Your task to perform on an android device: turn on bluetooth scan Image 0: 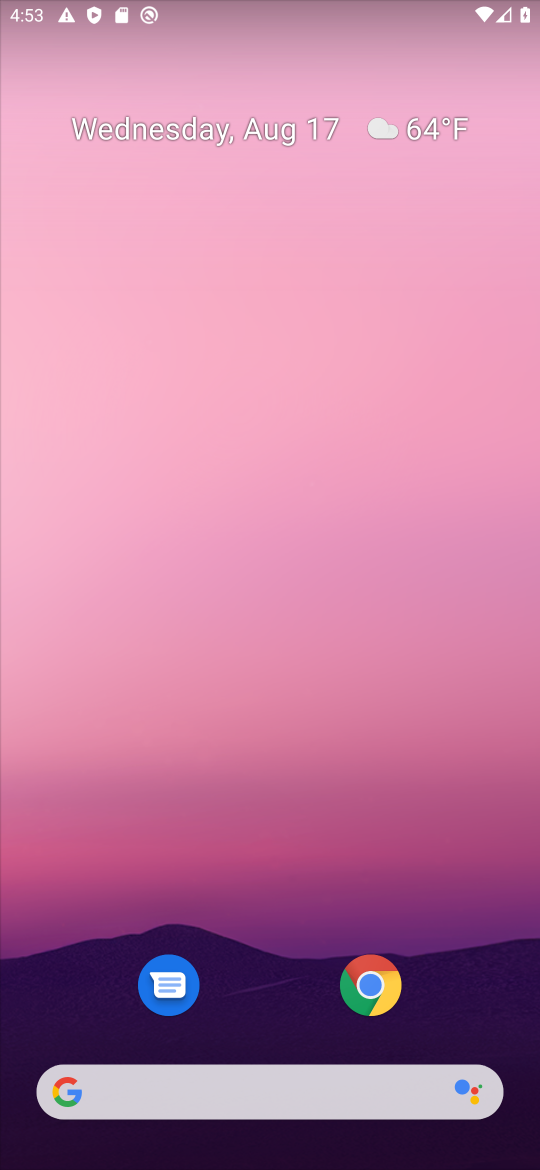
Step 0: drag from (237, 1091) to (428, 289)
Your task to perform on an android device: turn on bluetooth scan Image 1: 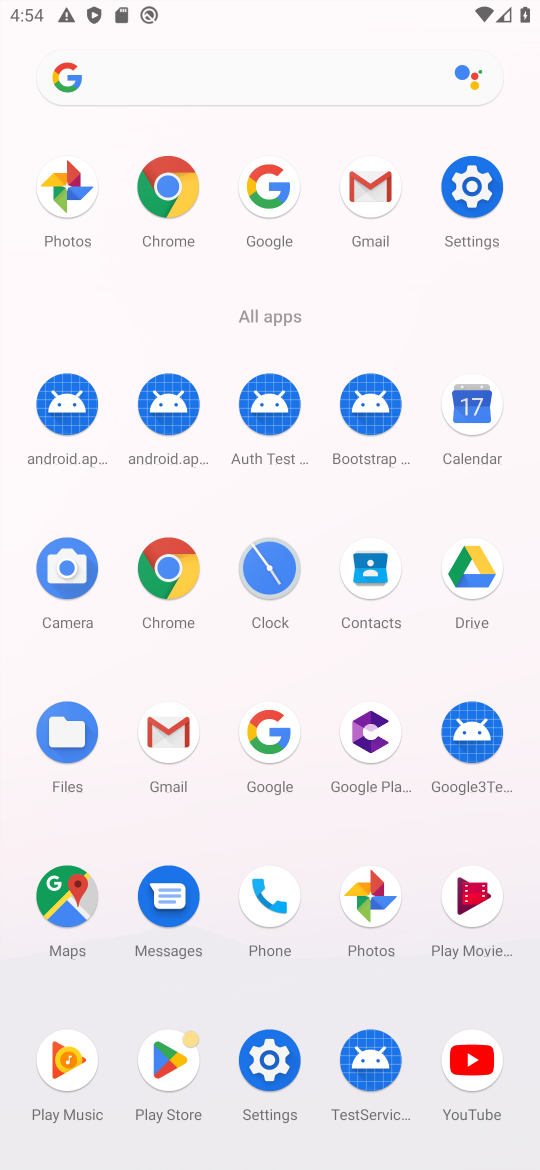
Step 1: click (471, 188)
Your task to perform on an android device: turn on bluetooth scan Image 2: 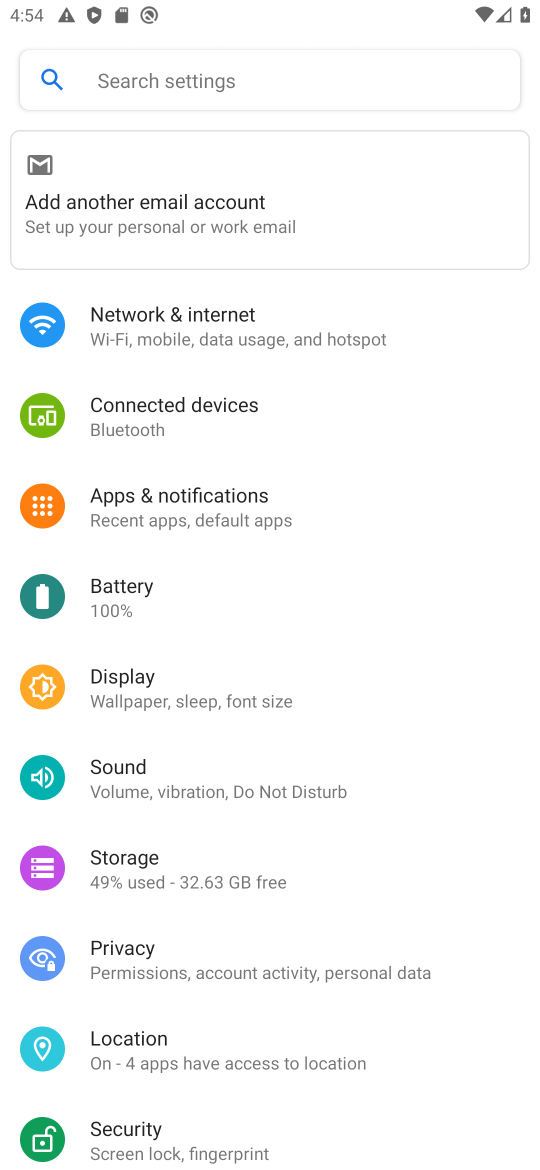
Step 2: click (125, 1039)
Your task to perform on an android device: turn on bluetooth scan Image 3: 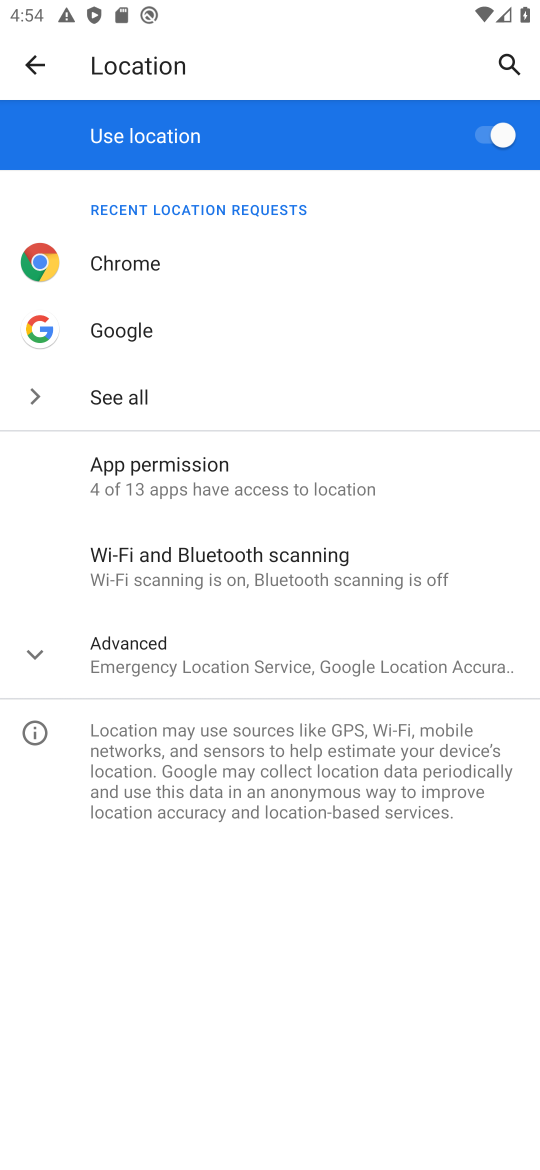
Step 3: click (315, 552)
Your task to perform on an android device: turn on bluetooth scan Image 4: 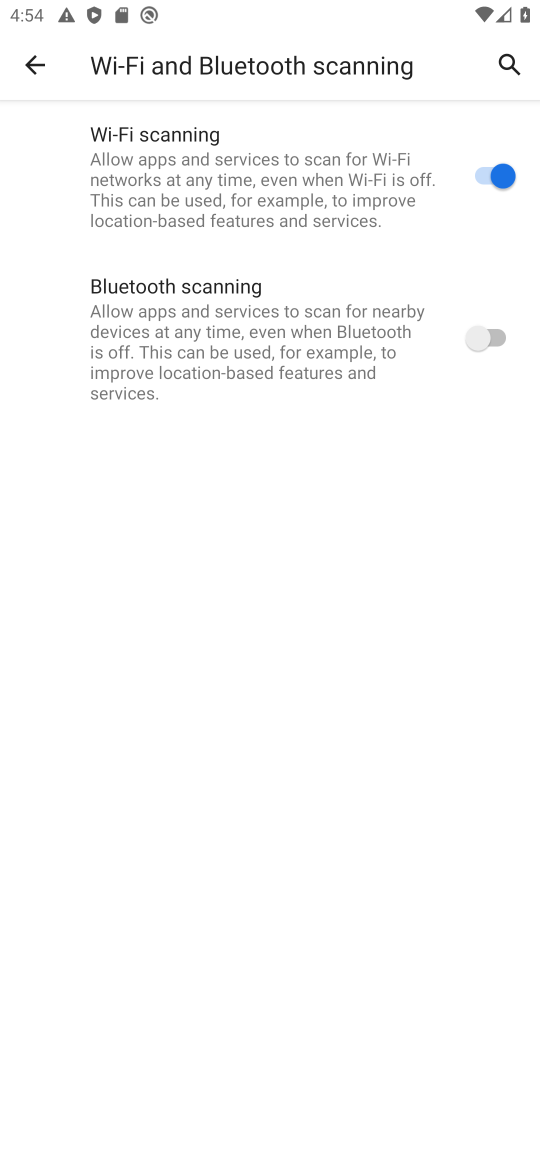
Step 4: click (490, 334)
Your task to perform on an android device: turn on bluetooth scan Image 5: 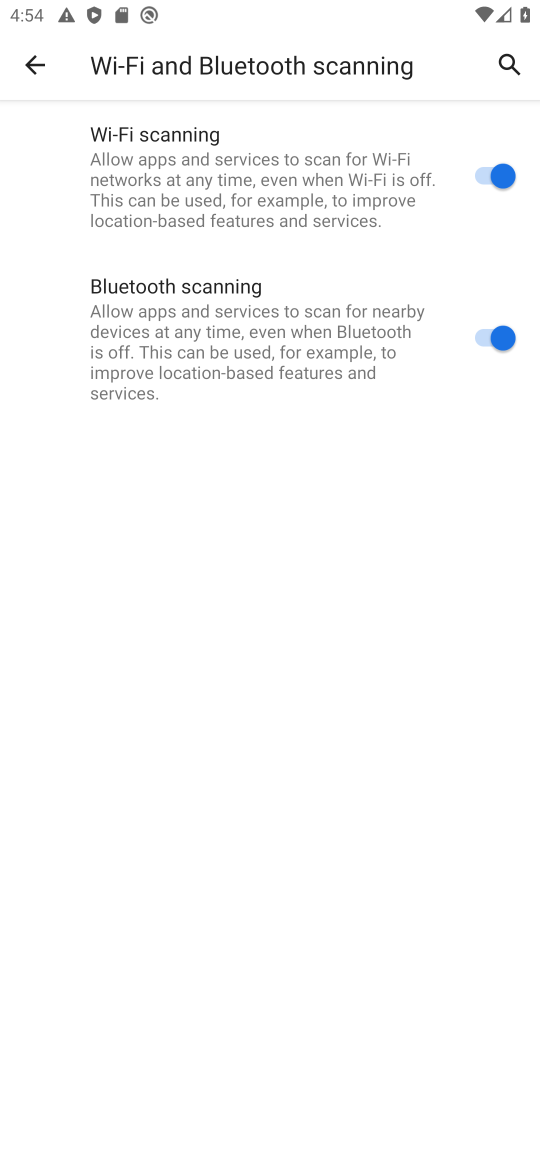
Step 5: task complete